Your task to perform on an android device: Go to Google Image 0: 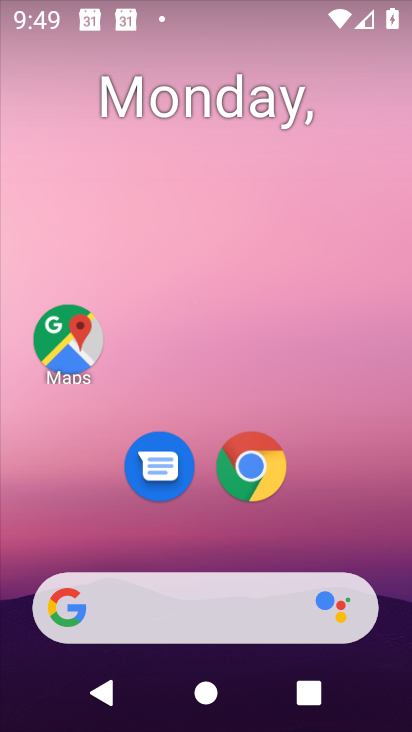
Step 0: drag from (381, 578) to (231, 25)
Your task to perform on an android device: Go to Google Image 1: 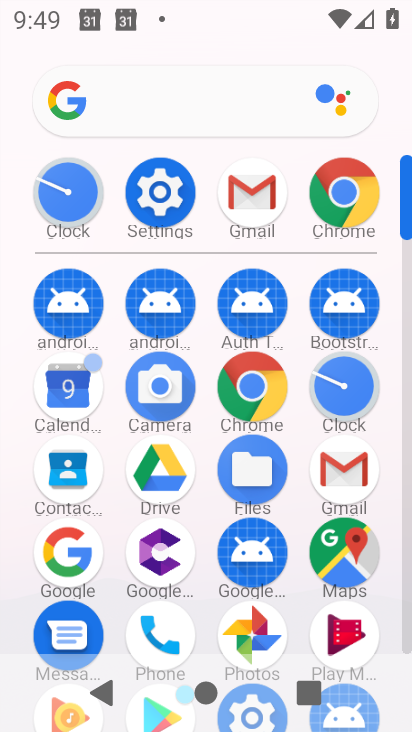
Step 1: click (58, 547)
Your task to perform on an android device: Go to Google Image 2: 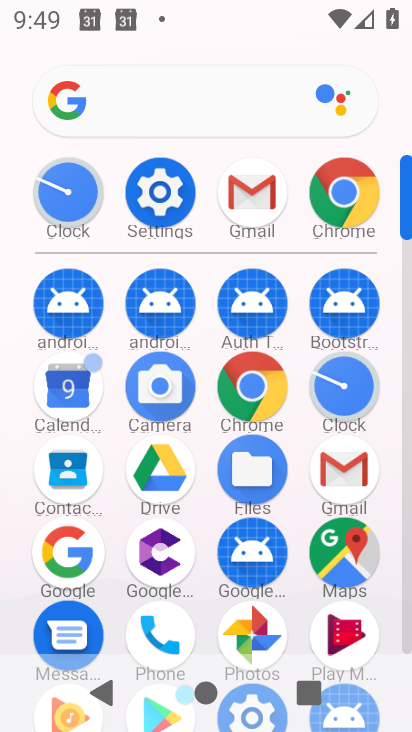
Step 2: click (61, 547)
Your task to perform on an android device: Go to Google Image 3: 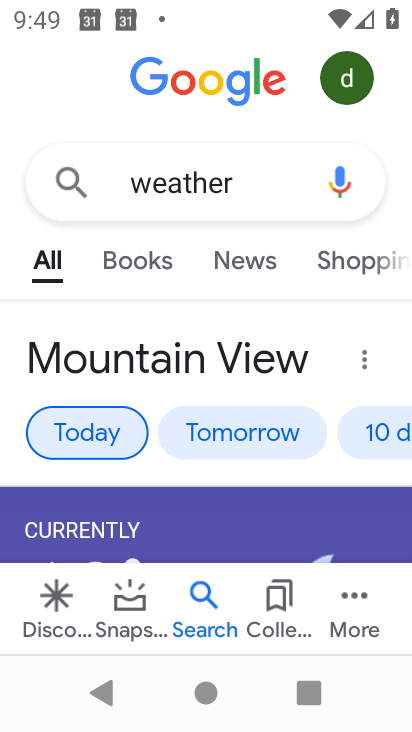
Step 3: task complete